Your task to perform on an android device: Go to settings Image 0: 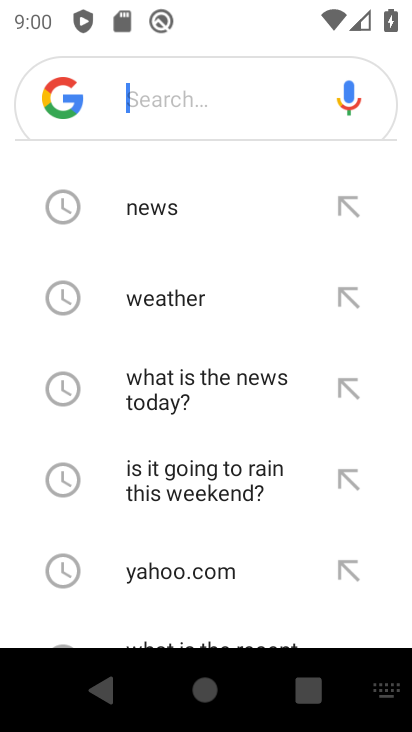
Step 0: press home button
Your task to perform on an android device: Go to settings Image 1: 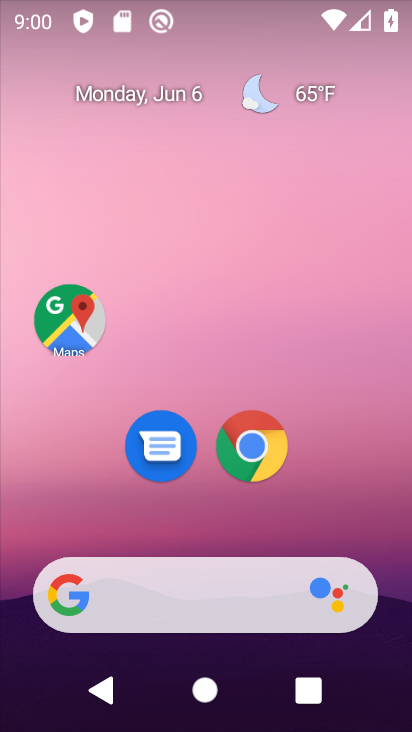
Step 1: drag from (227, 541) to (220, 293)
Your task to perform on an android device: Go to settings Image 2: 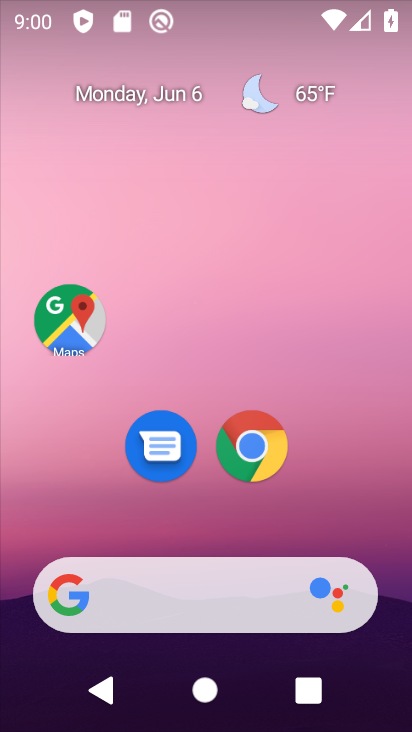
Step 2: drag from (185, 530) to (213, 106)
Your task to perform on an android device: Go to settings Image 3: 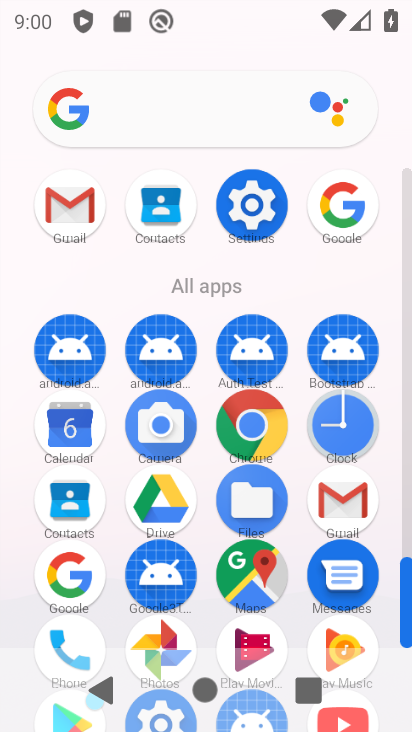
Step 3: click (254, 203)
Your task to perform on an android device: Go to settings Image 4: 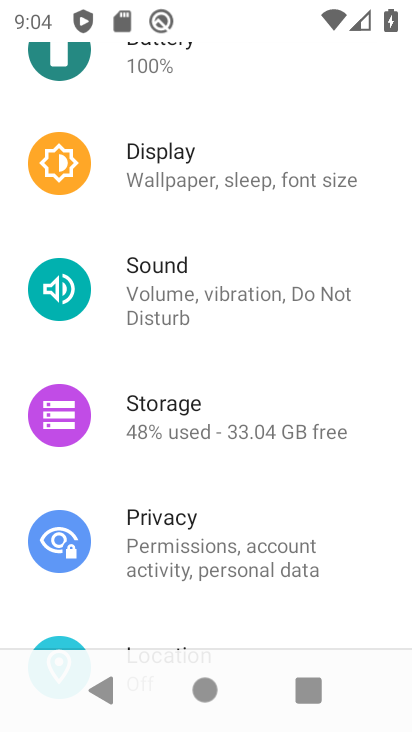
Step 4: task complete